Your task to perform on an android device: Open the Play Movies app and select the watchlist tab. Image 0: 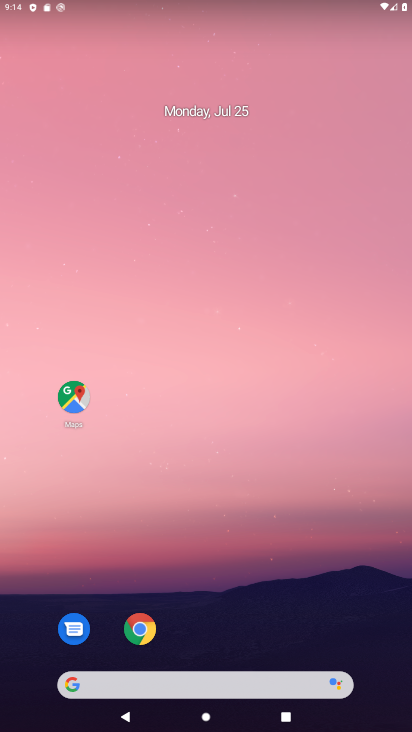
Step 0: drag from (333, 627) to (145, 45)
Your task to perform on an android device: Open the Play Movies app and select the watchlist tab. Image 1: 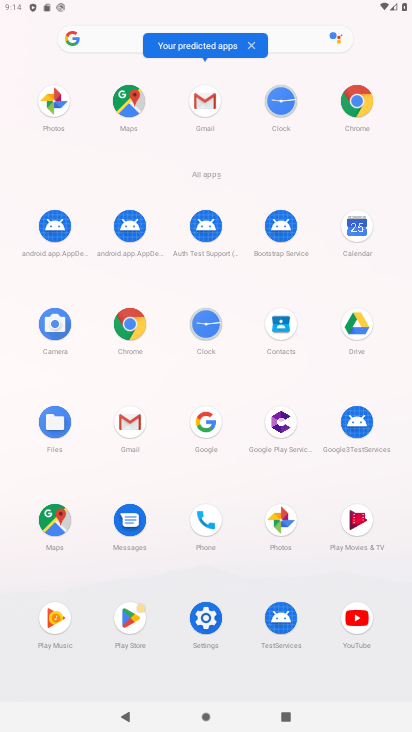
Step 1: click (353, 524)
Your task to perform on an android device: Open the Play Movies app and select the watchlist tab. Image 2: 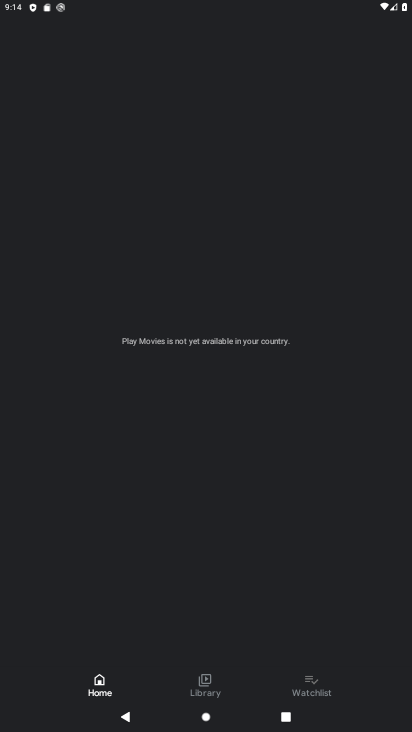
Step 2: click (330, 701)
Your task to perform on an android device: Open the Play Movies app and select the watchlist tab. Image 3: 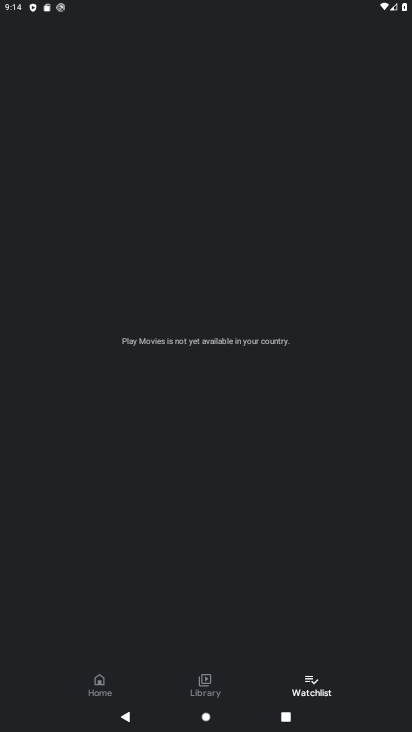
Step 3: task complete